Your task to perform on an android device: snooze an email in the gmail app Image 0: 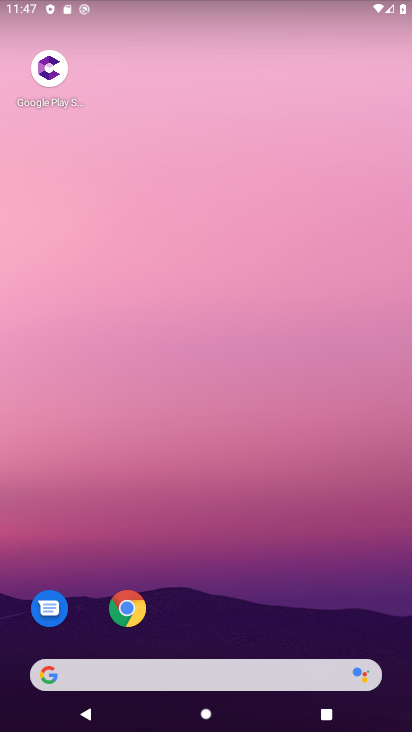
Step 0: drag from (207, 580) to (115, 167)
Your task to perform on an android device: snooze an email in the gmail app Image 1: 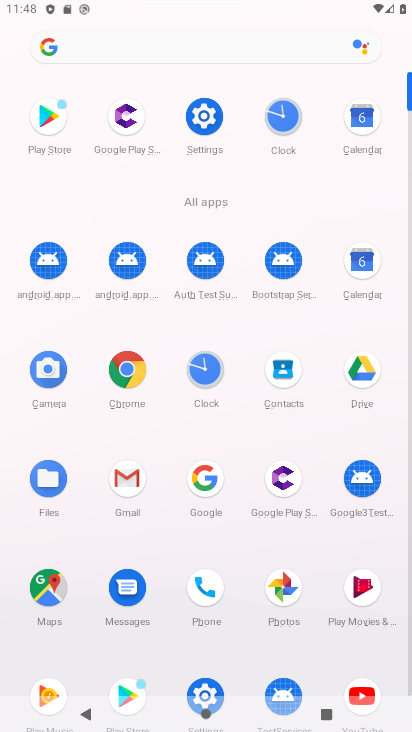
Step 1: click (135, 474)
Your task to perform on an android device: snooze an email in the gmail app Image 2: 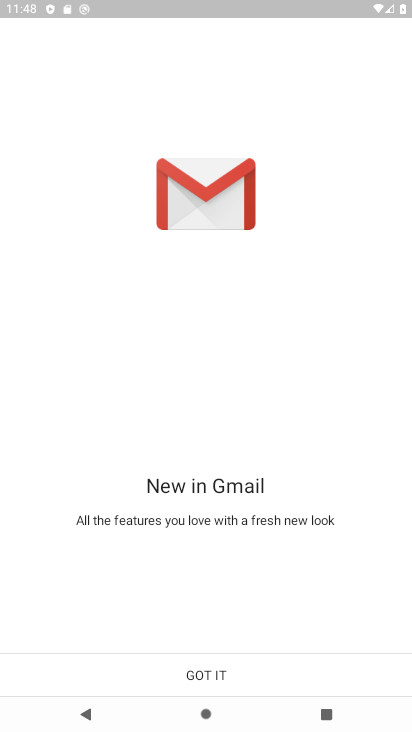
Step 2: click (195, 667)
Your task to perform on an android device: snooze an email in the gmail app Image 3: 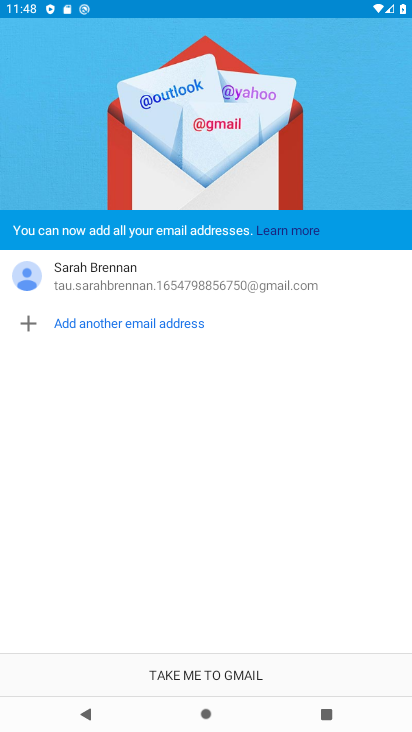
Step 3: click (220, 661)
Your task to perform on an android device: snooze an email in the gmail app Image 4: 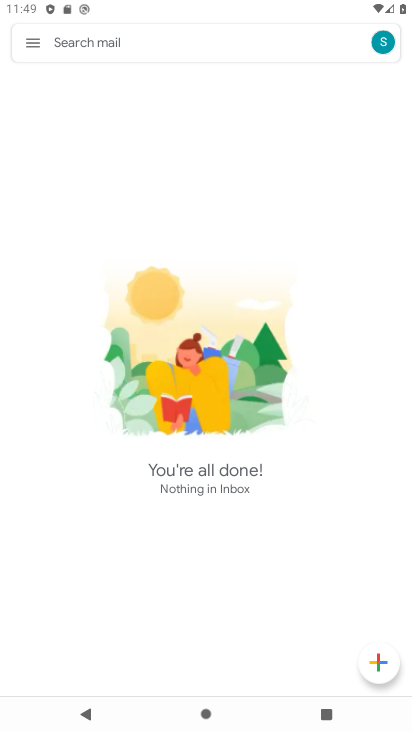
Step 4: click (33, 42)
Your task to perform on an android device: snooze an email in the gmail app Image 5: 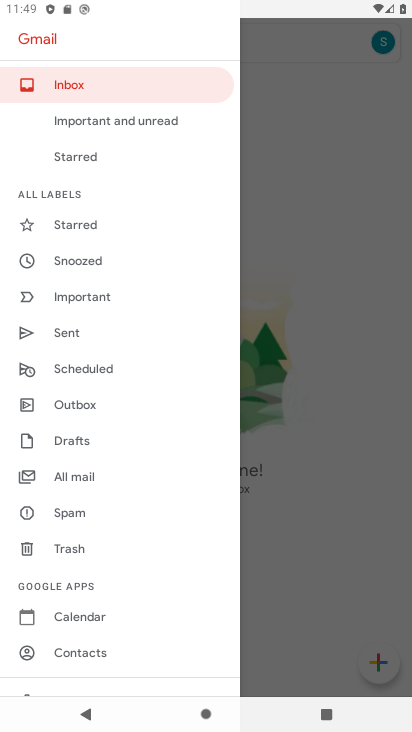
Step 5: click (264, 271)
Your task to perform on an android device: snooze an email in the gmail app Image 6: 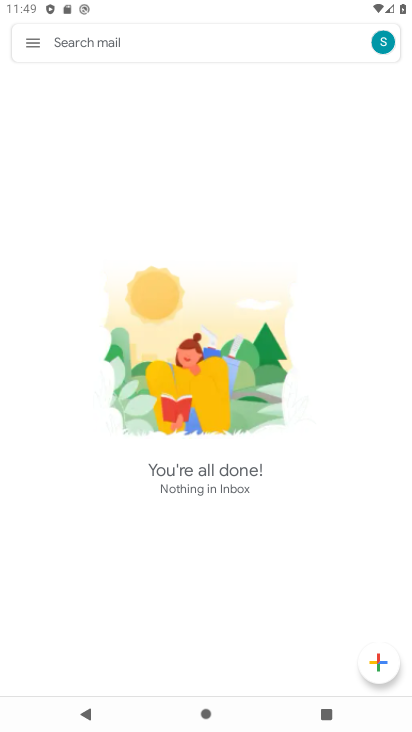
Step 6: task complete